Your task to perform on an android device: turn on wifi Image 0: 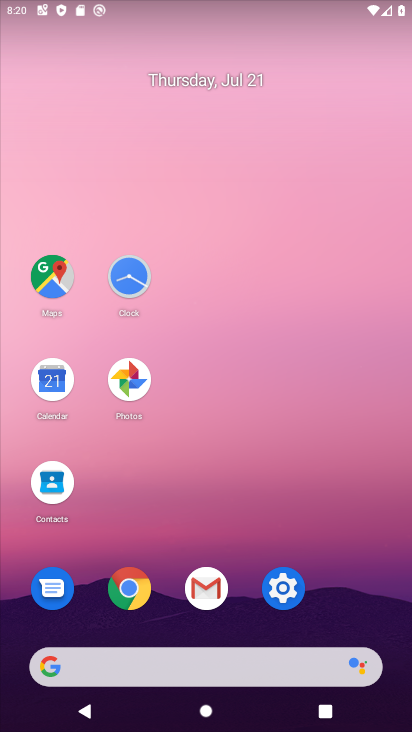
Step 0: click (280, 587)
Your task to perform on an android device: turn on wifi Image 1: 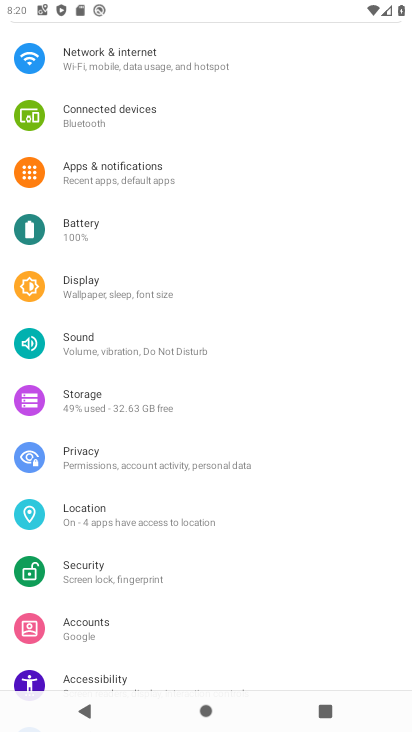
Step 1: click (113, 53)
Your task to perform on an android device: turn on wifi Image 2: 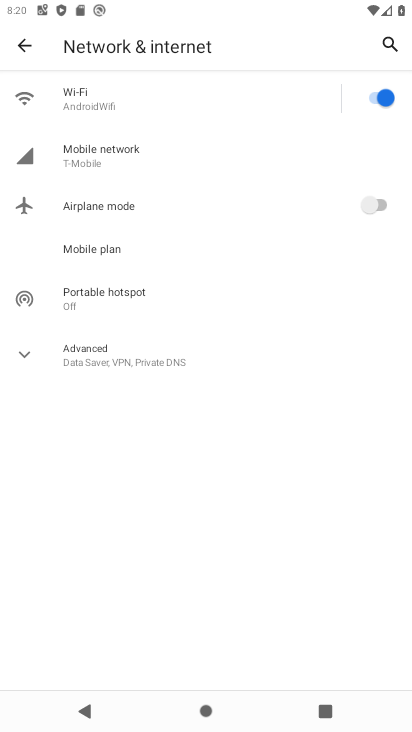
Step 2: task complete